Your task to perform on an android device: turn smart compose on in the gmail app Image 0: 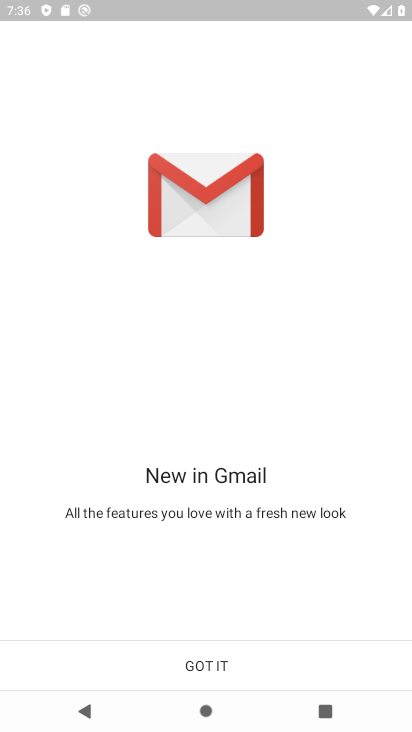
Step 0: click (201, 663)
Your task to perform on an android device: turn smart compose on in the gmail app Image 1: 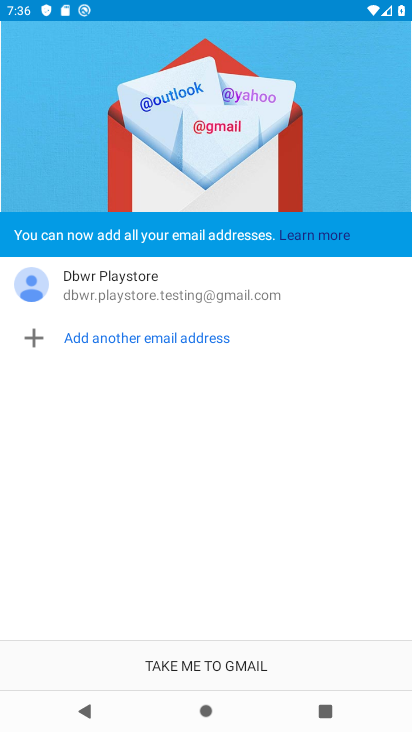
Step 1: click (190, 670)
Your task to perform on an android device: turn smart compose on in the gmail app Image 2: 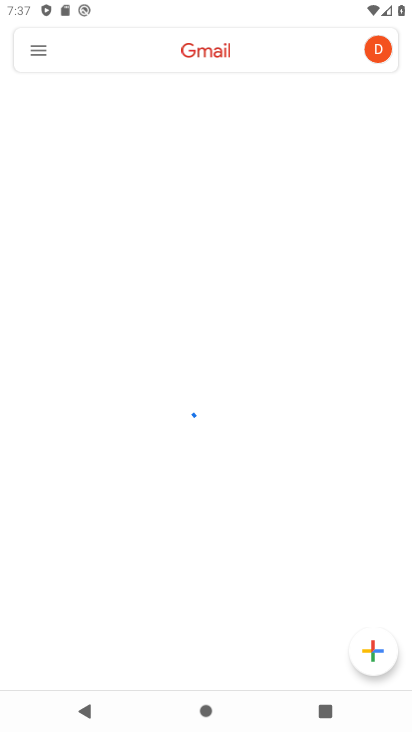
Step 2: click (39, 42)
Your task to perform on an android device: turn smart compose on in the gmail app Image 3: 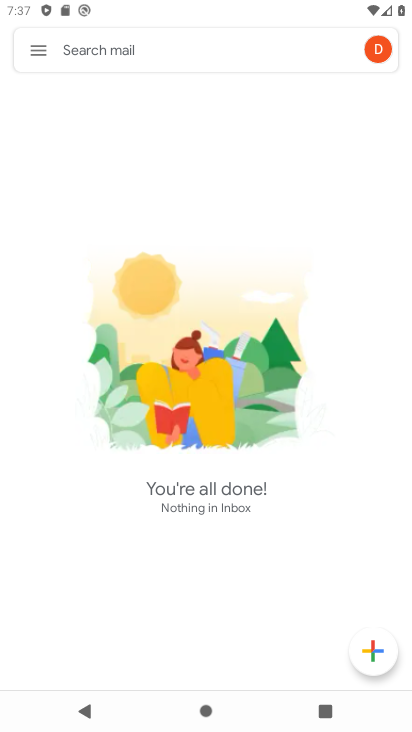
Step 3: click (41, 62)
Your task to perform on an android device: turn smart compose on in the gmail app Image 4: 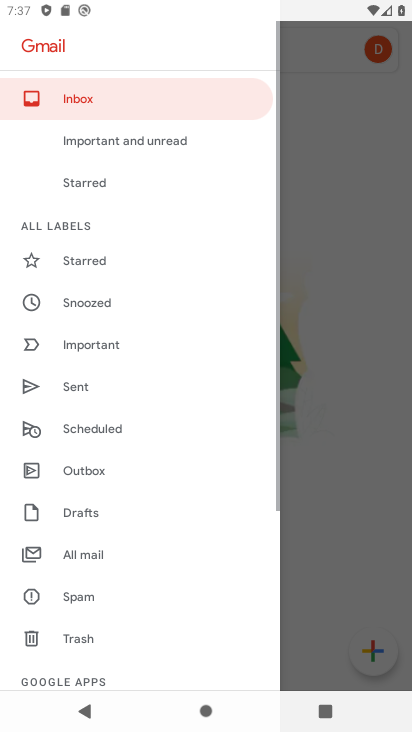
Step 4: drag from (106, 598) to (192, 295)
Your task to perform on an android device: turn smart compose on in the gmail app Image 5: 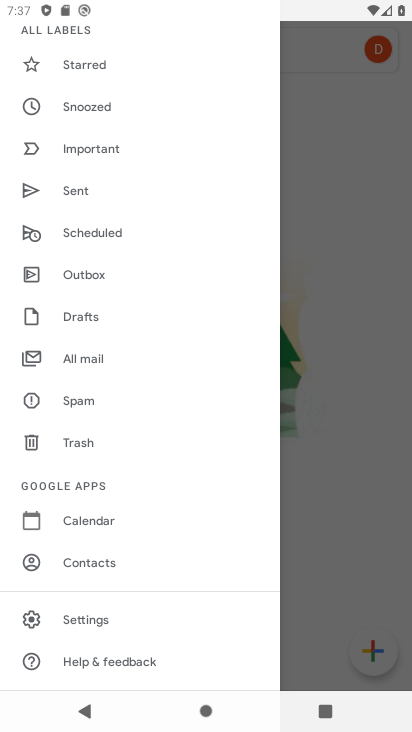
Step 5: click (96, 625)
Your task to perform on an android device: turn smart compose on in the gmail app Image 6: 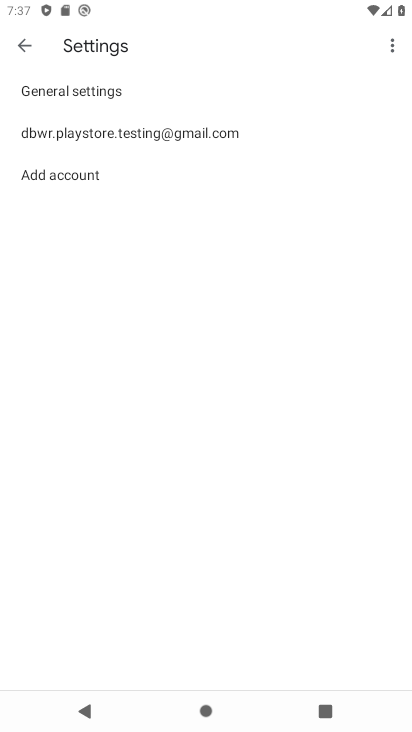
Step 6: click (222, 147)
Your task to perform on an android device: turn smart compose on in the gmail app Image 7: 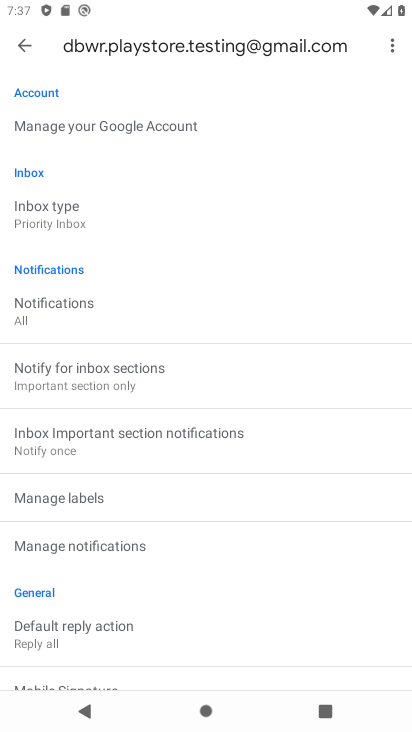
Step 7: task complete